Your task to perform on an android device: Go to eBay Image 0: 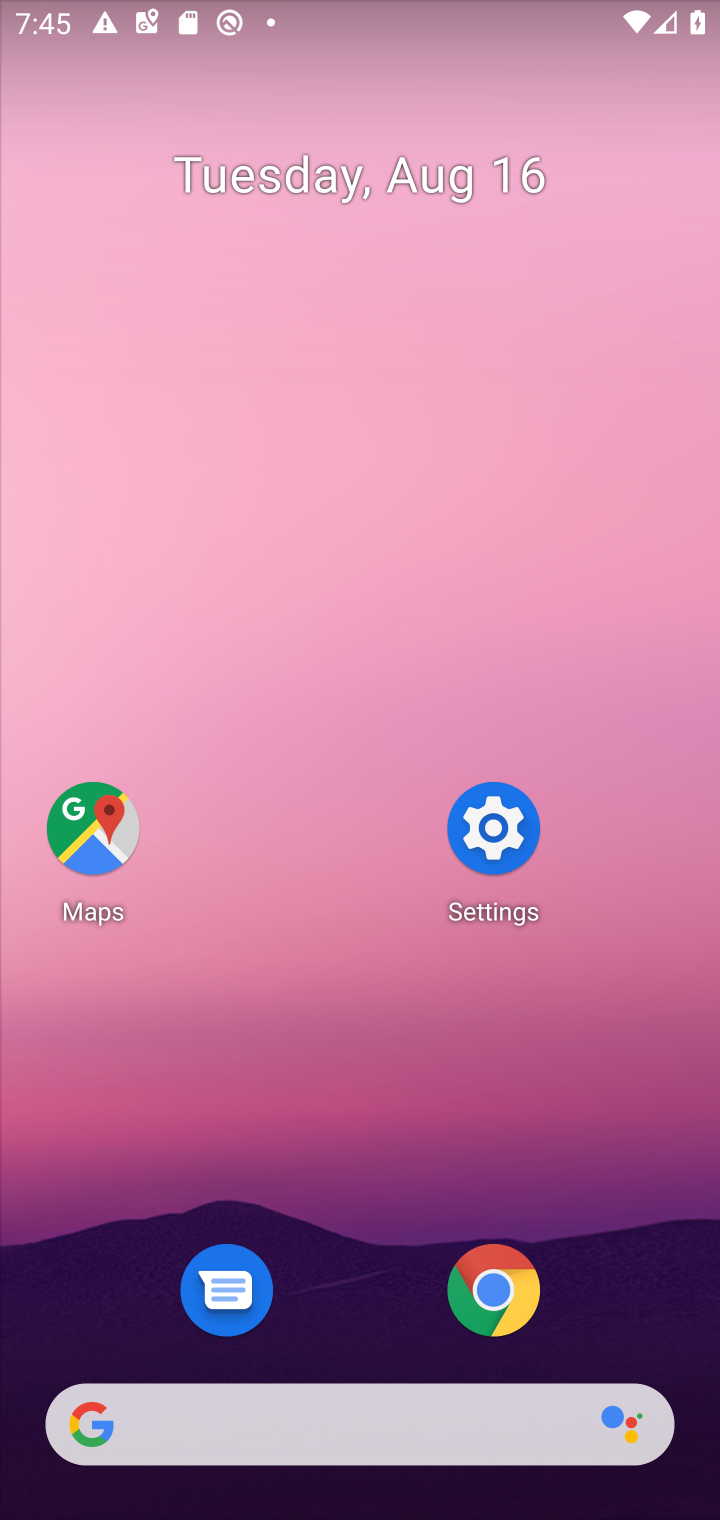
Step 0: click (484, 1295)
Your task to perform on an android device: Go to eBay Image 1: 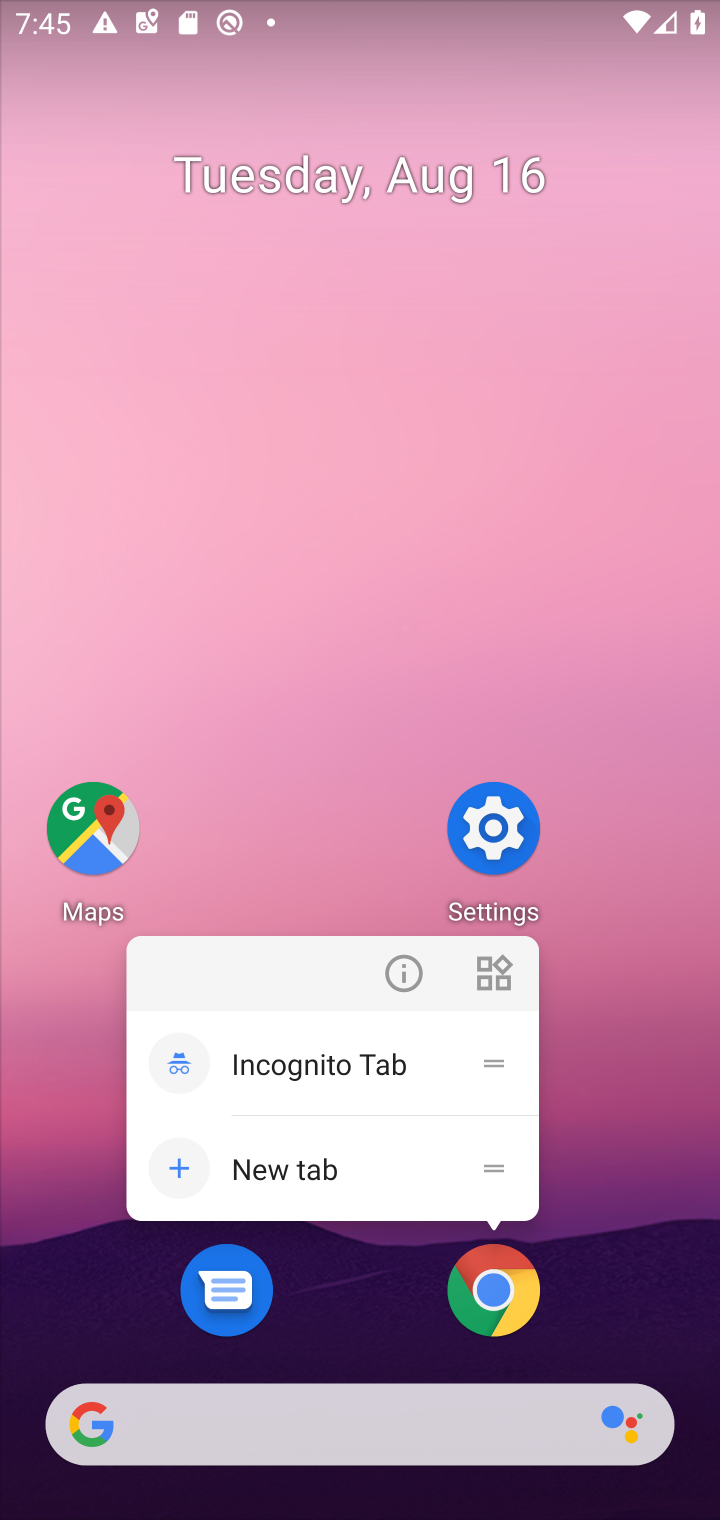
Step 1: click (492, 1288)
Your task to perform on an android device: Go to eBay Image 2: 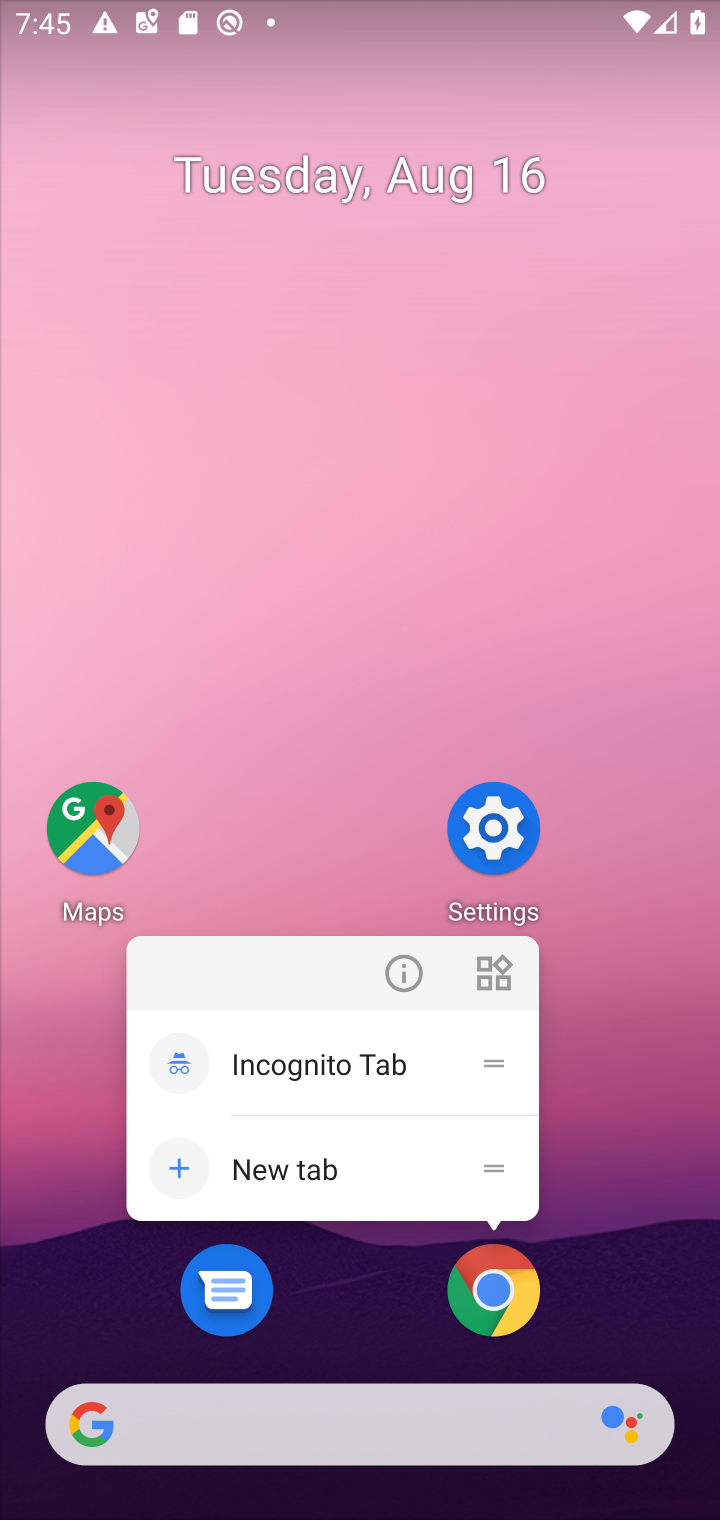
Step 2: click (492, 1288)
Your task to perform on an android device: Go to eBay Image 3: 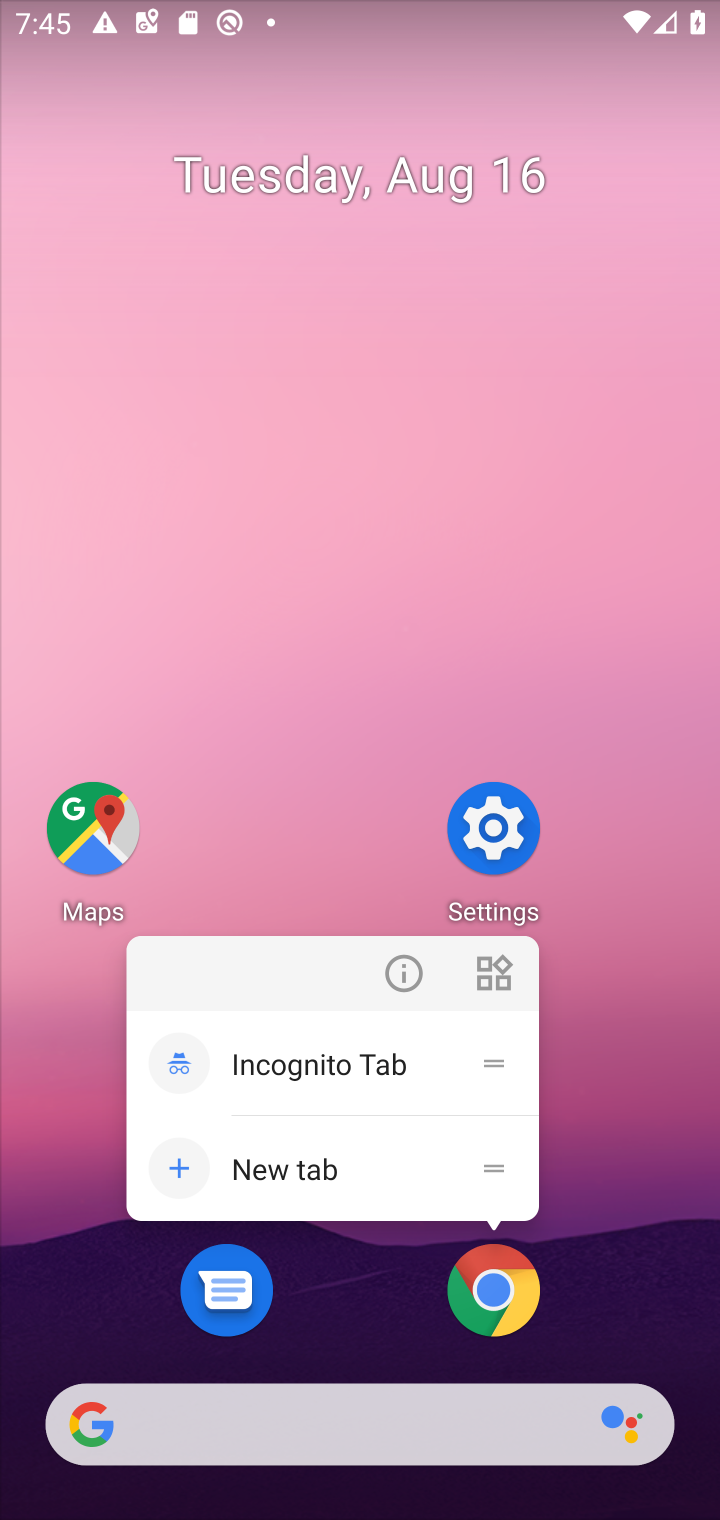
Step 3: click (492, 1288)
Your task to perform on an android device: Go to eBay Image 4: 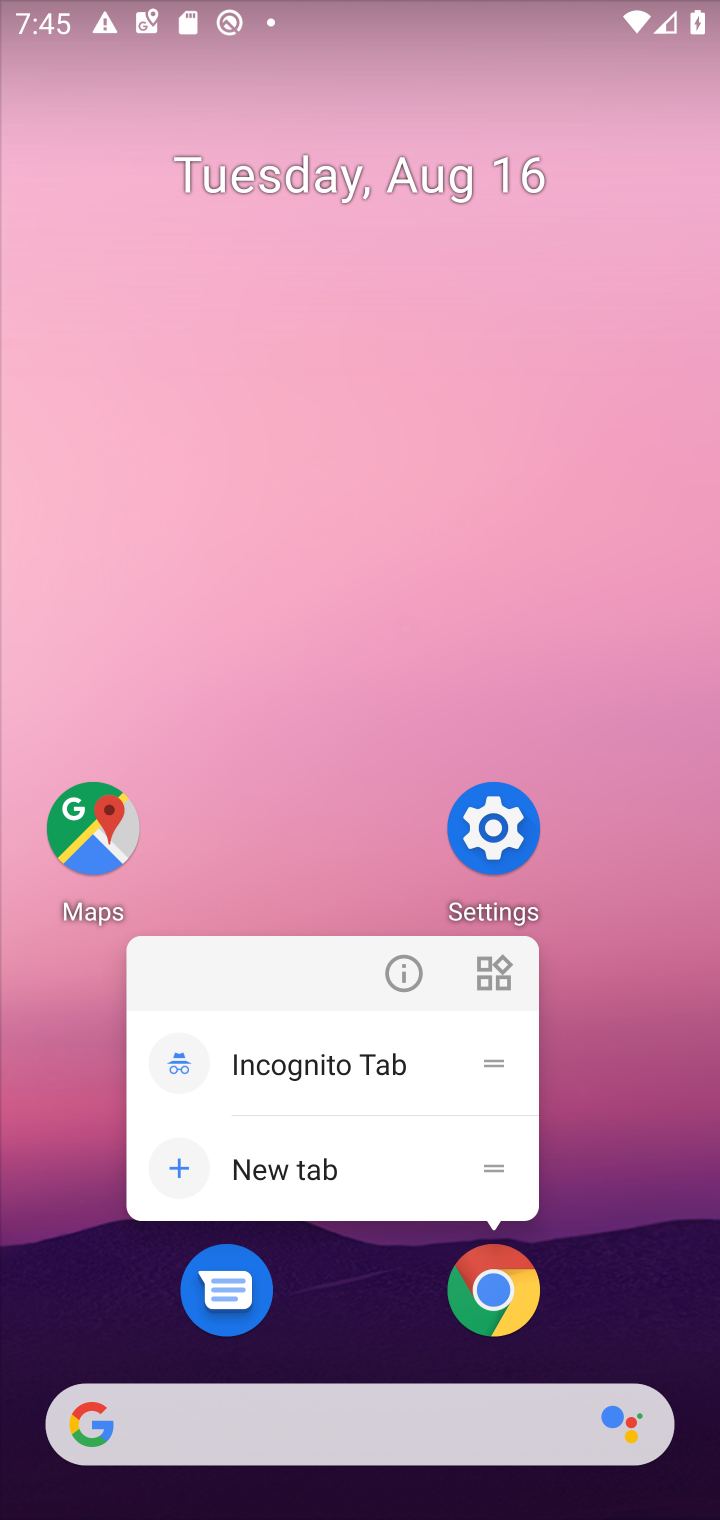
Step 4: click (492, 1288)
Your task to perform on an android device: Go to eBay Image 5: 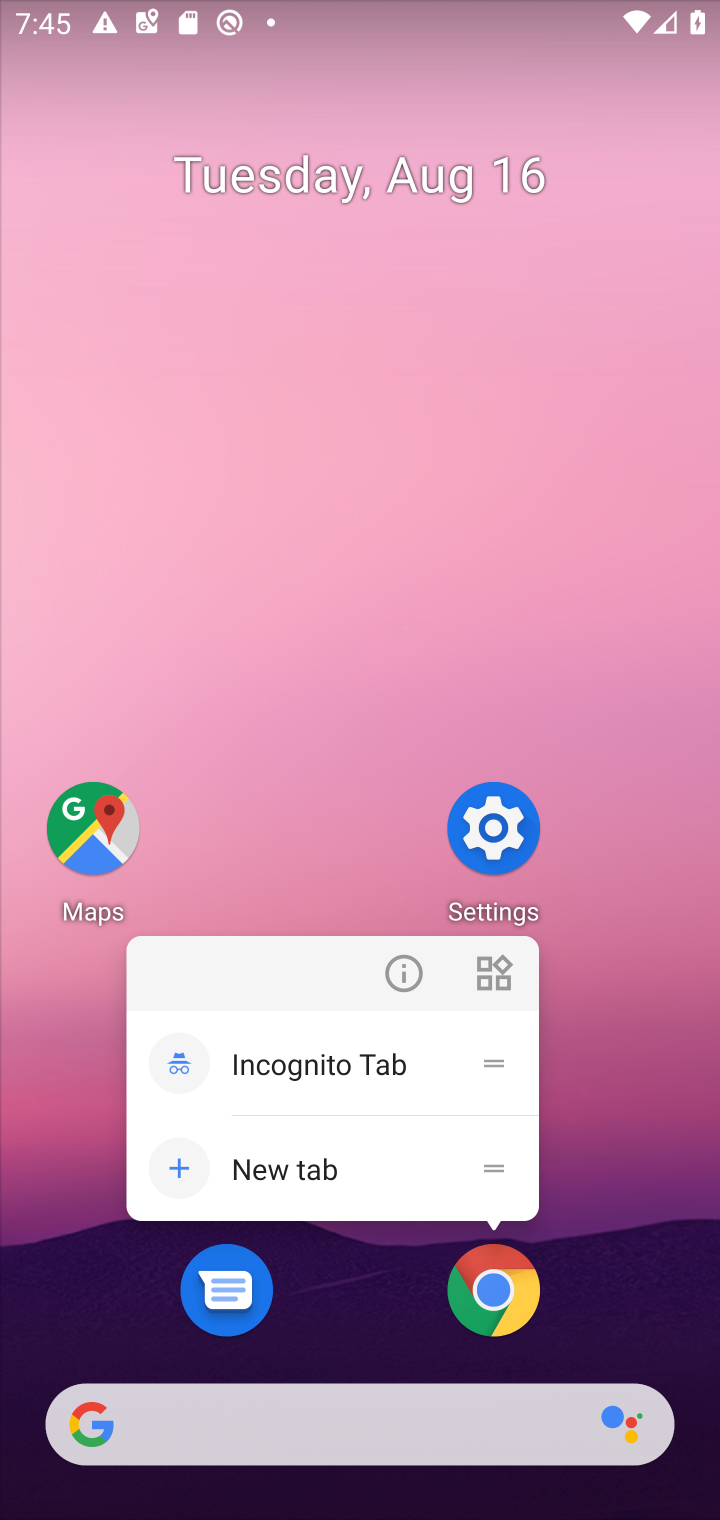
Step 5: click (492, 1289)
Your task to perform on an android device: Go to eBay Image 6: 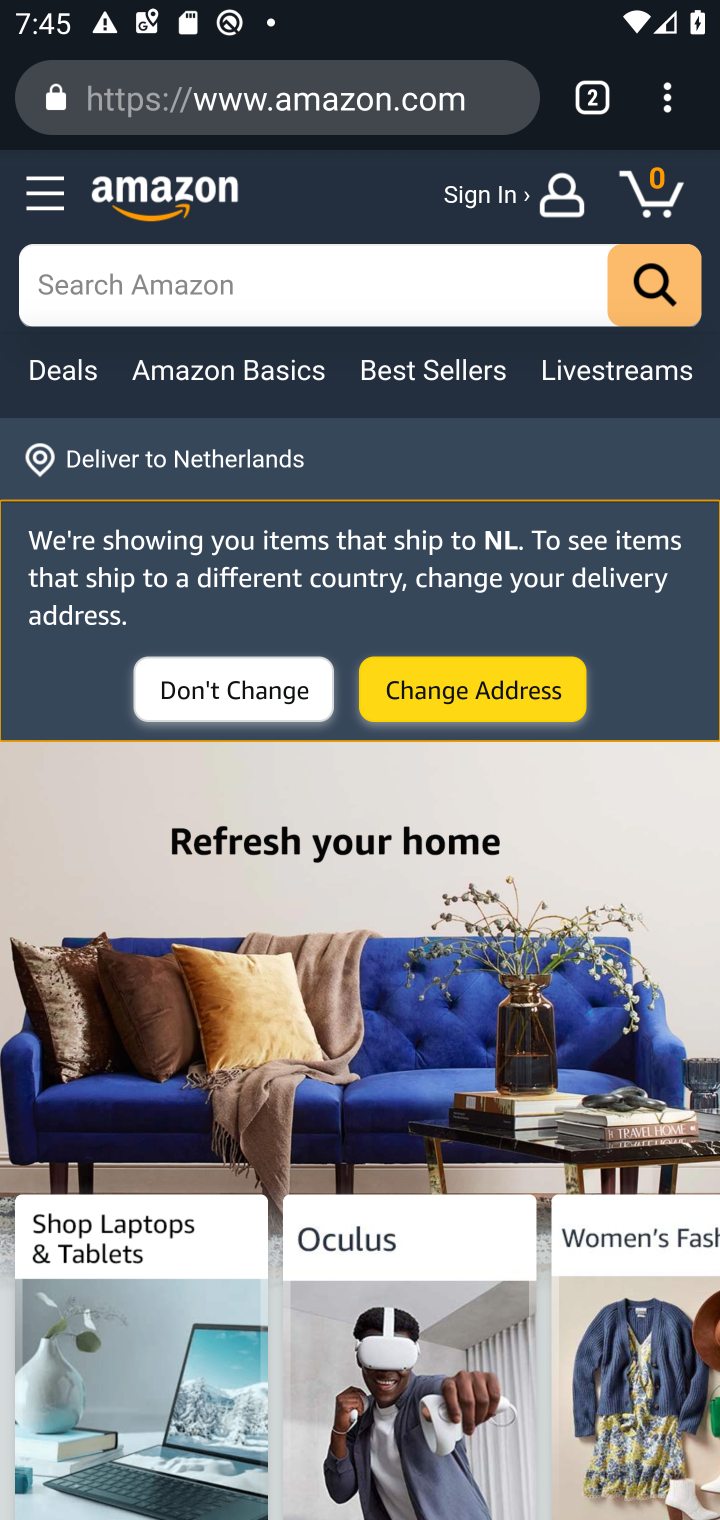
Step 6: drag from (673, 110) to (419, 319)
Your task to perform on an android device: Go to eBay Image 7: 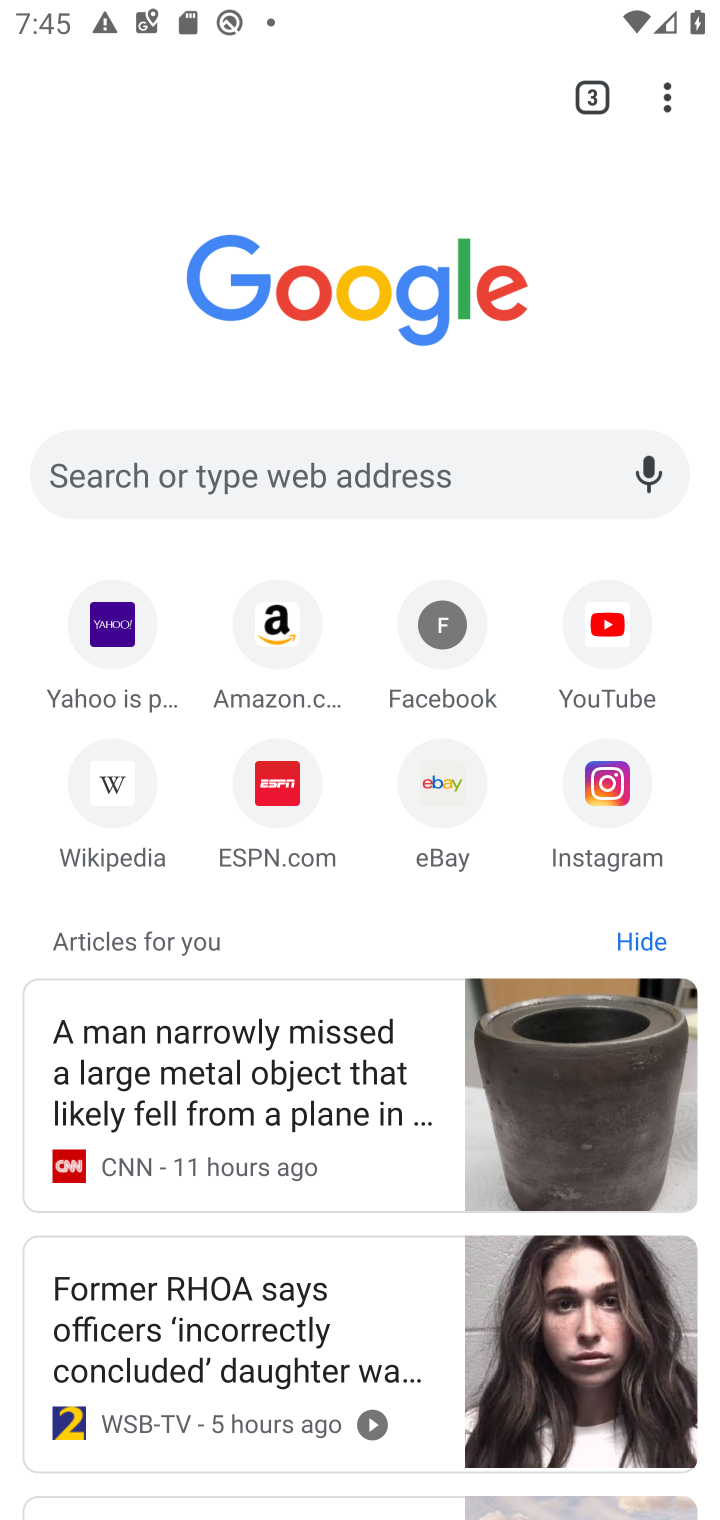
Step 7: click (432, 774)
Your task to perform on an android device: Go to eBay Image 8: 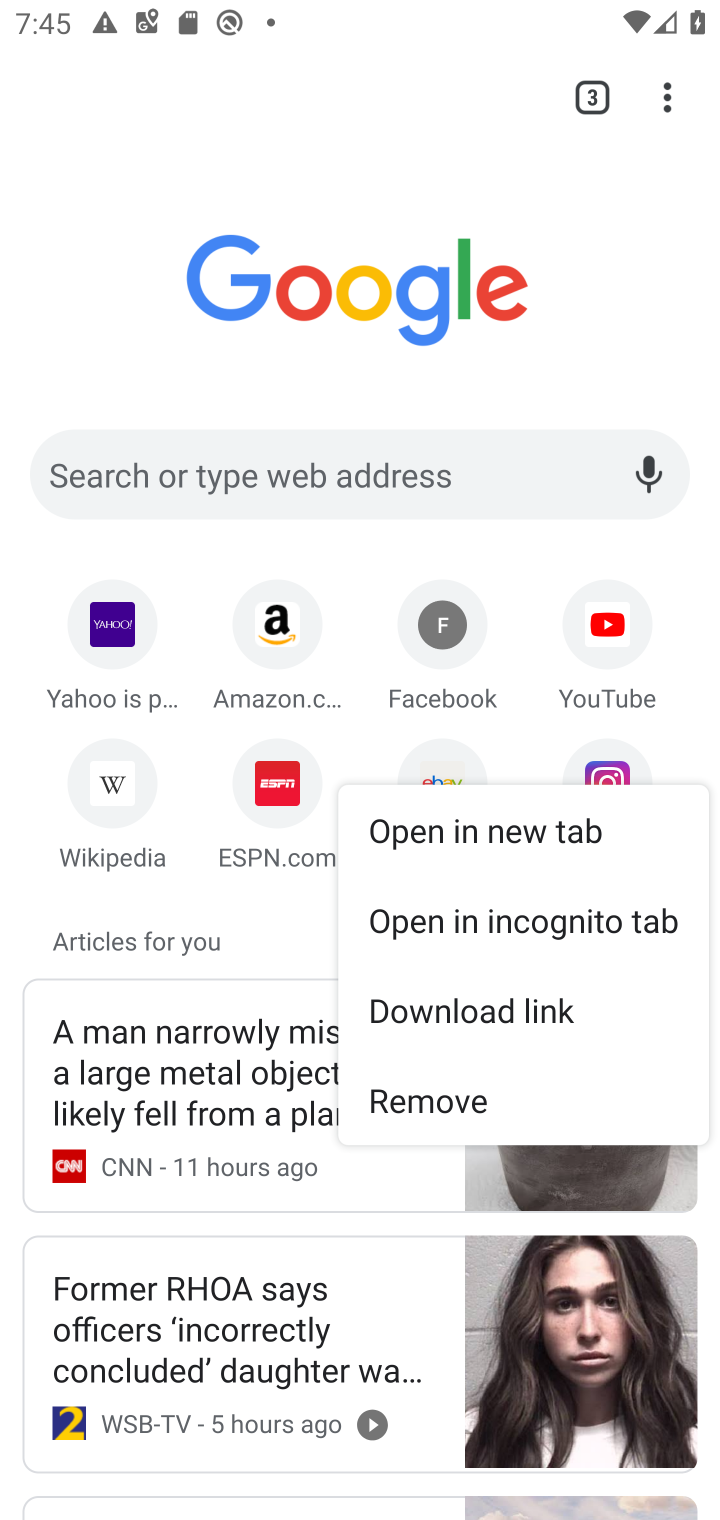
Step 8: click (442, 763)
Your task to perform on an android device: Go to eBay Image 9: 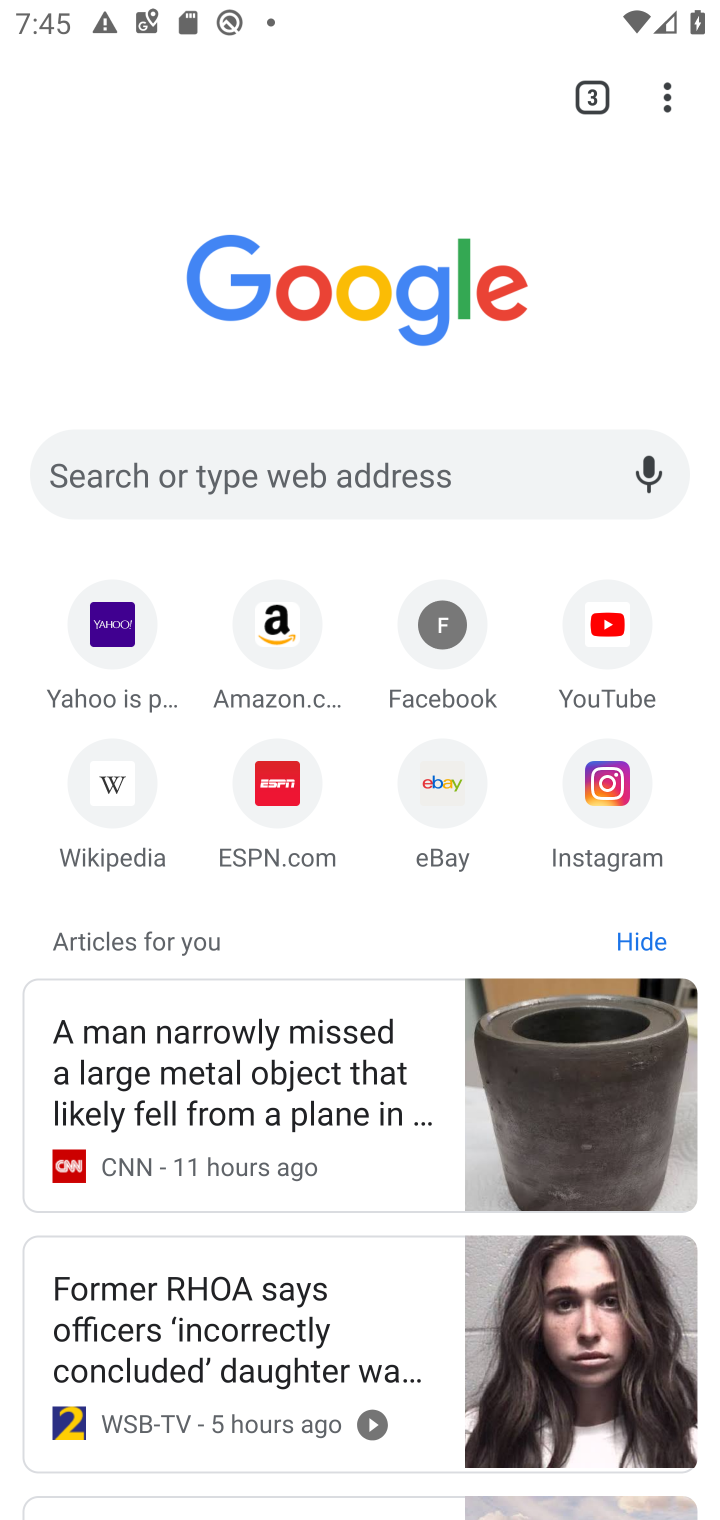
Step 9: click (434, 800)
Your task to perform on an android device: Go to eBay Image 10: 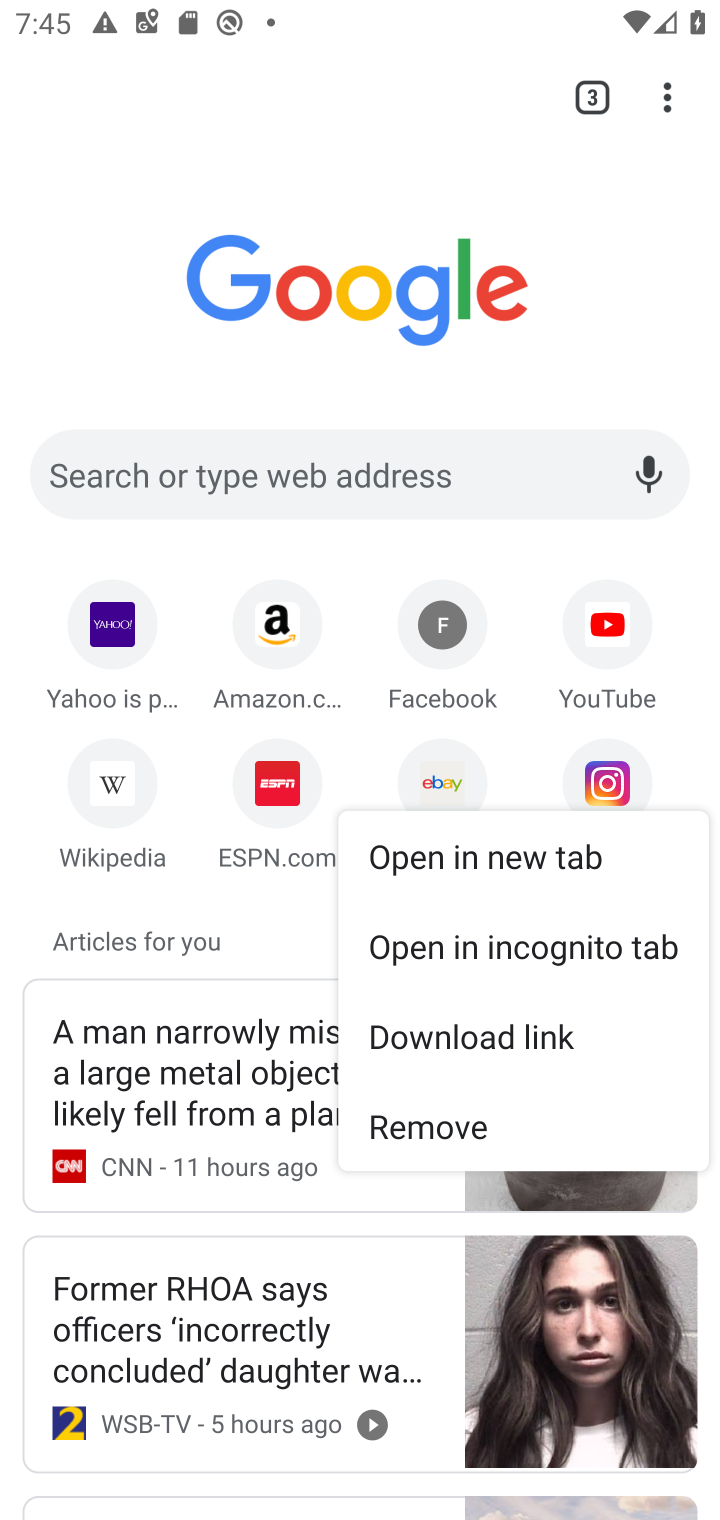
Step 10: click (440, 772)
Your task to perform on an android device: Go to eBay Image 11: 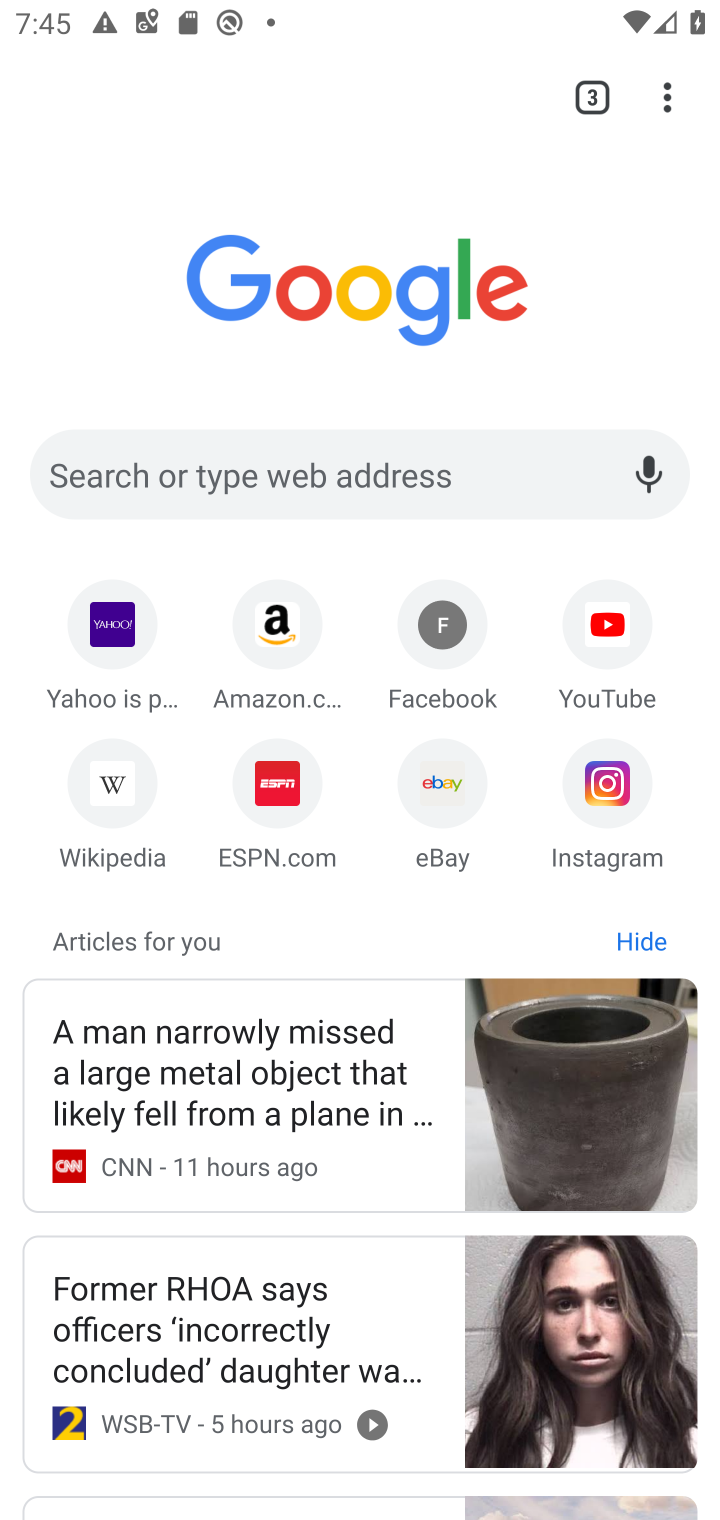
Step 11: click (440, 772)
Your task to perform on an android device: Go to eBay Image 12: 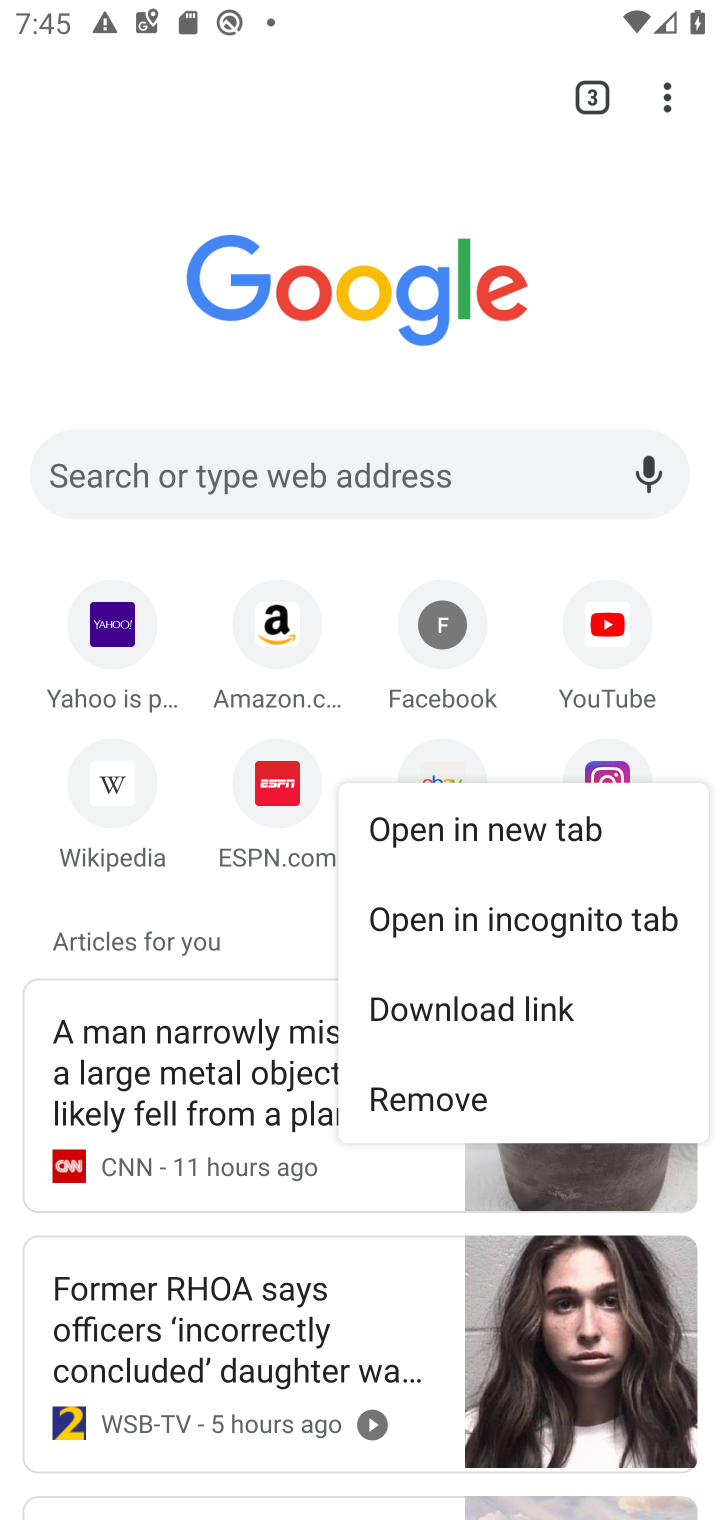
Step 12: click (440, 772)
Your task to perform on an android device: Go to eBay Image 13: 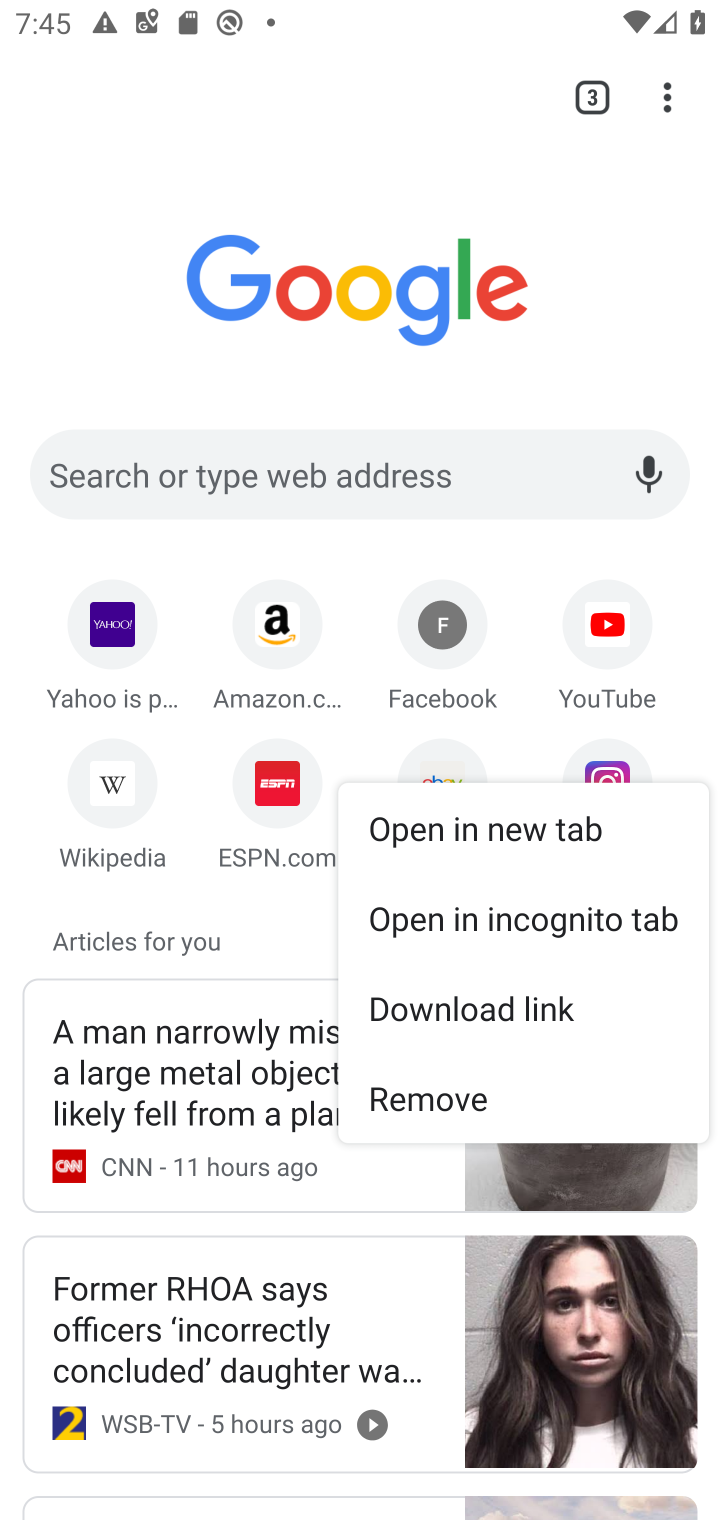
Step 13: click (443, 766)
Your task to perform on an android device: Go to eBay Image 14: 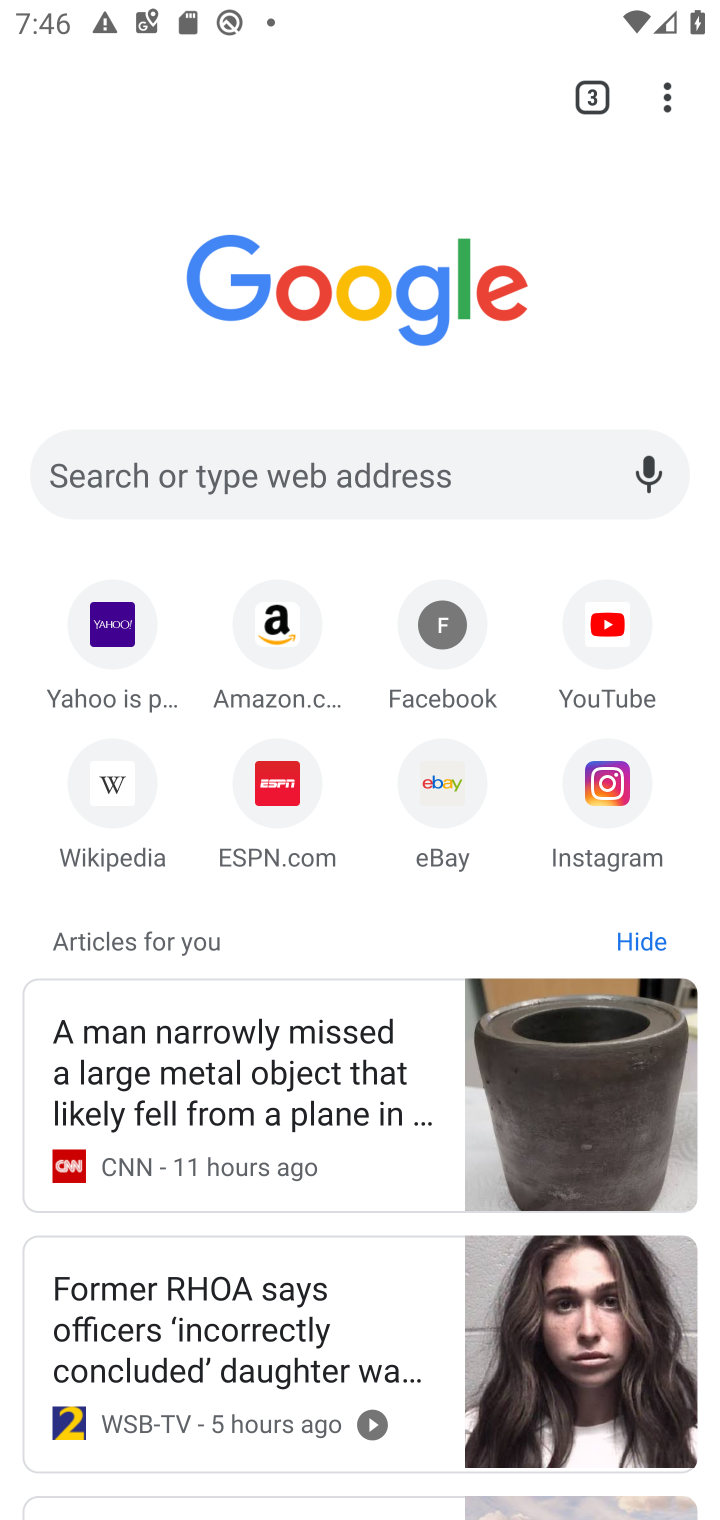
Step 14: click (439, 786)
Your task to perform on an android device: Go to eBay Image 15: 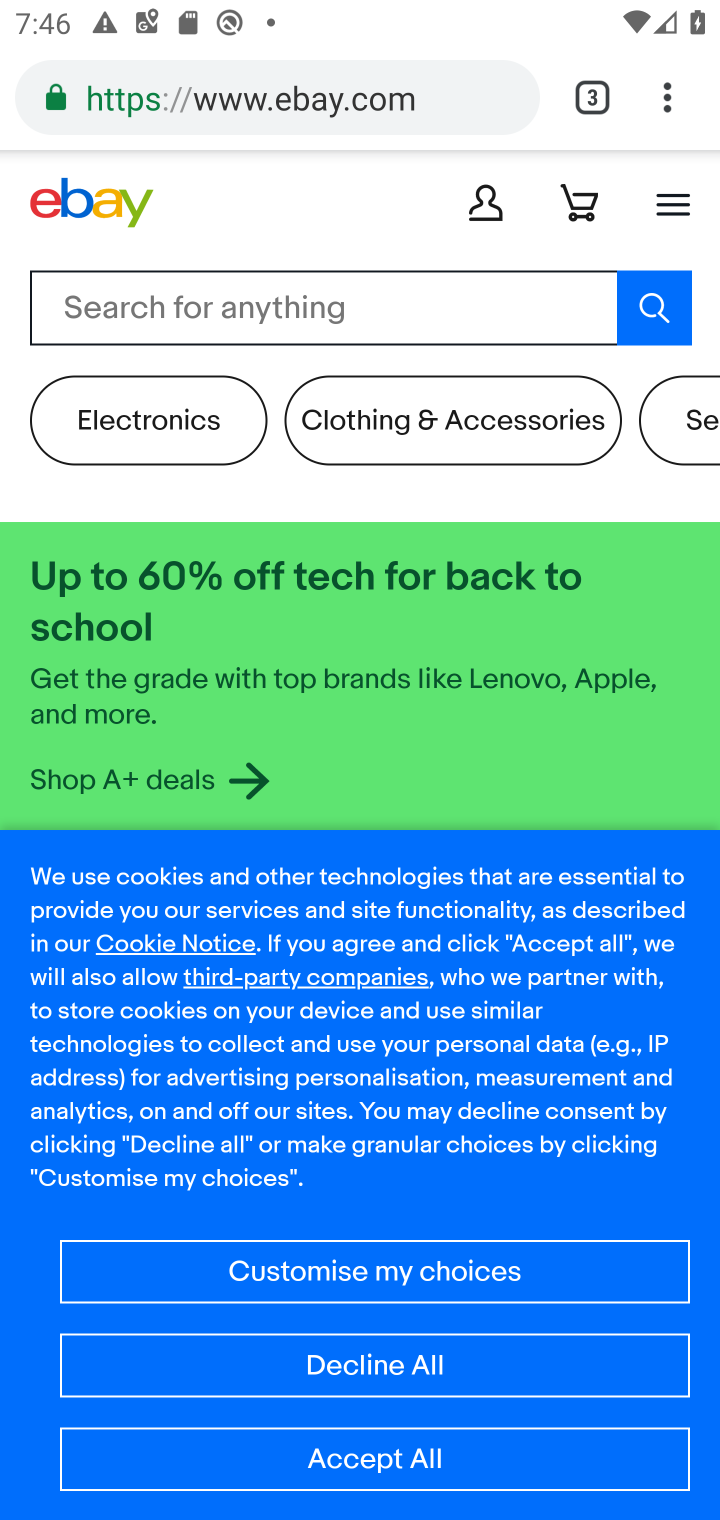
Step 15: task complete